Your task to perform on an android device: open app "Upside-Cash back on gas & food" Image 0: 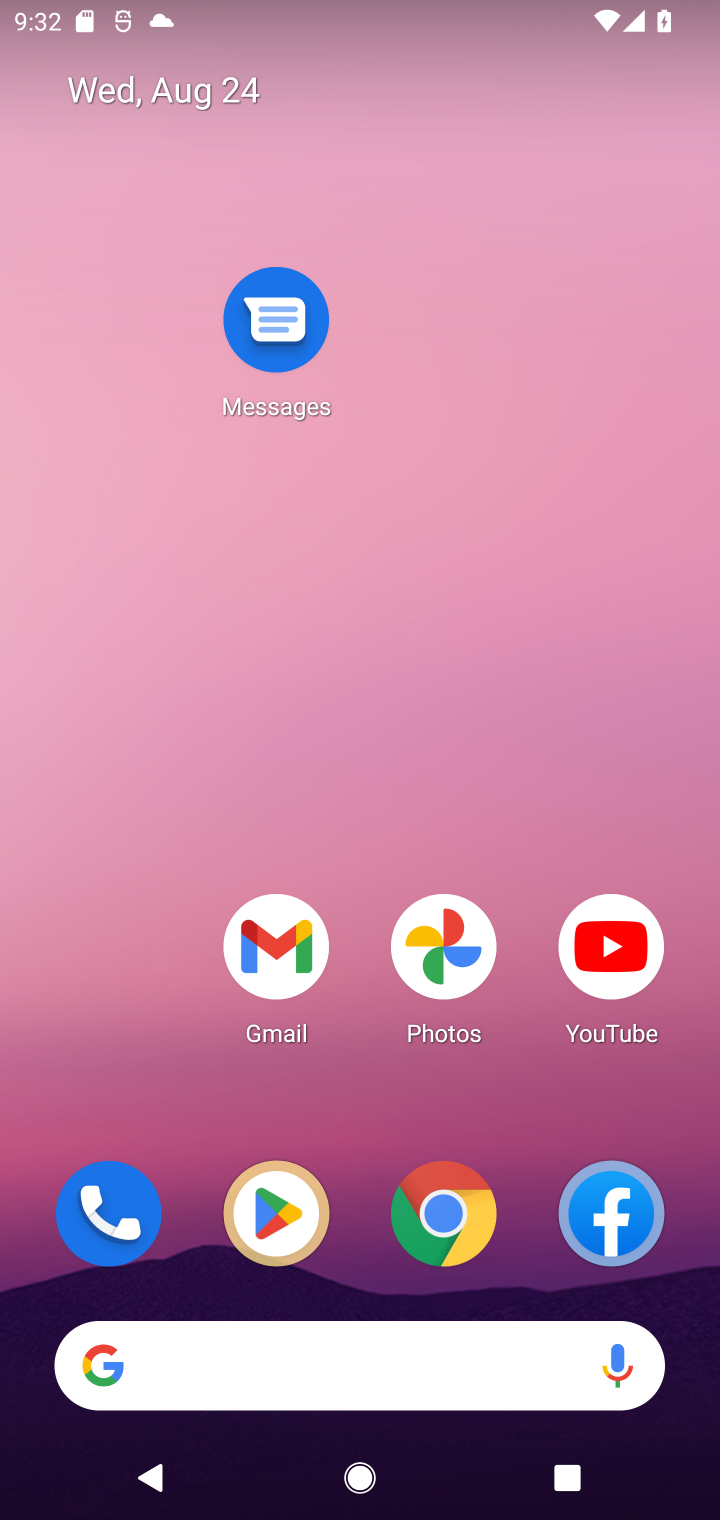
Step 0: click (288, 1220)
Your task to perform on an android device: open app "Upside-Cash back on gas & food" Image 1: 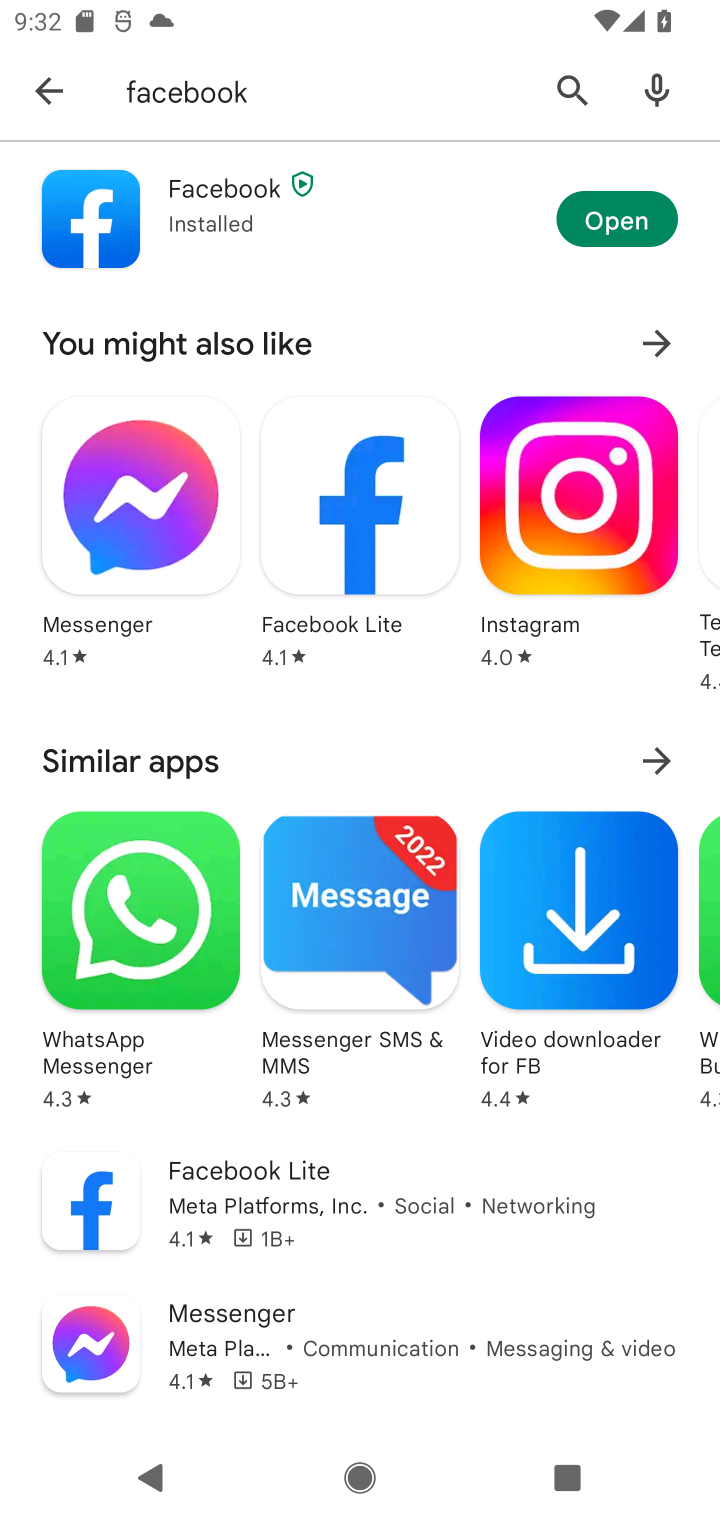
Step 1: click (319, 75)
Your task to perform on an android device: open app "Upside-Cash back on gas & food" Image 2: 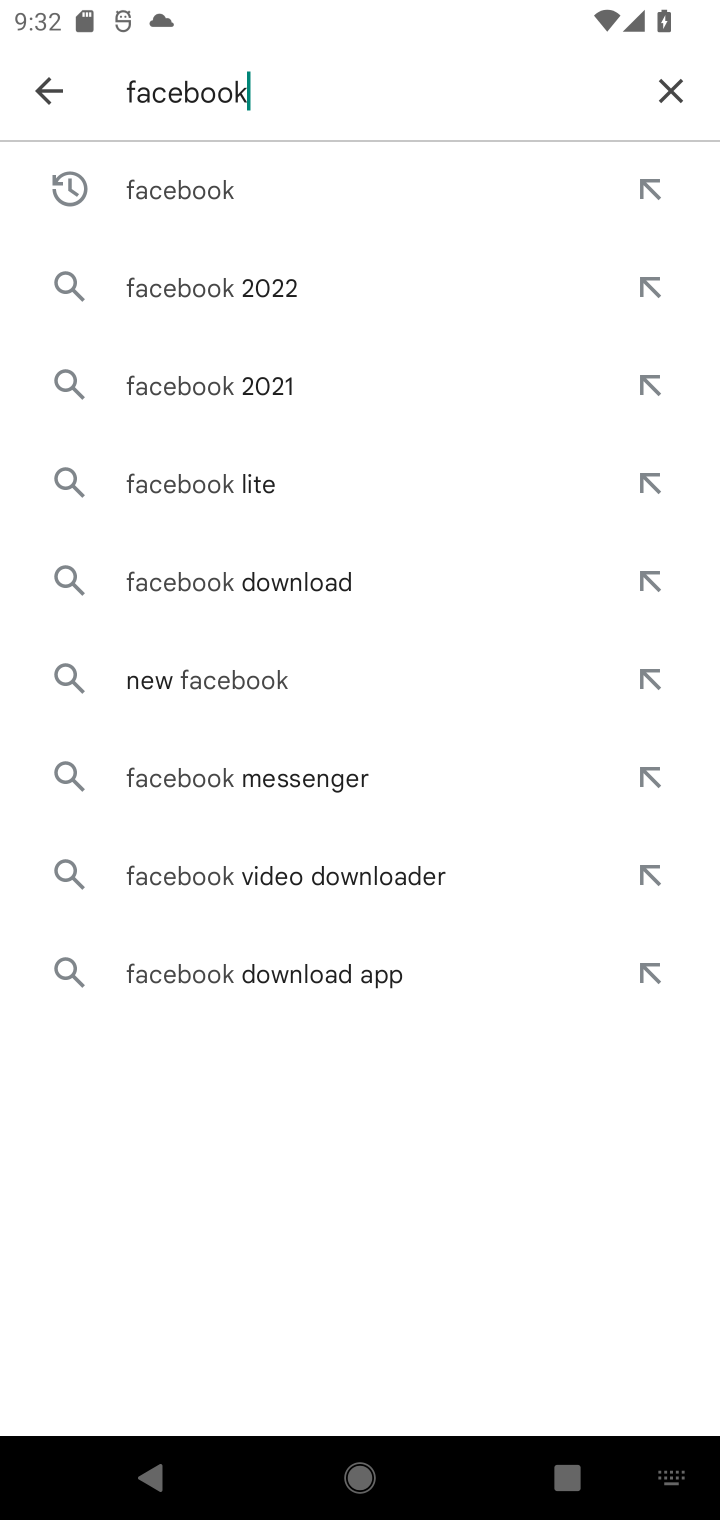
Step 2: click (673, 81)
Your task to perform on an android device: open app "Upside-Cash back on gas & food" Image 3: 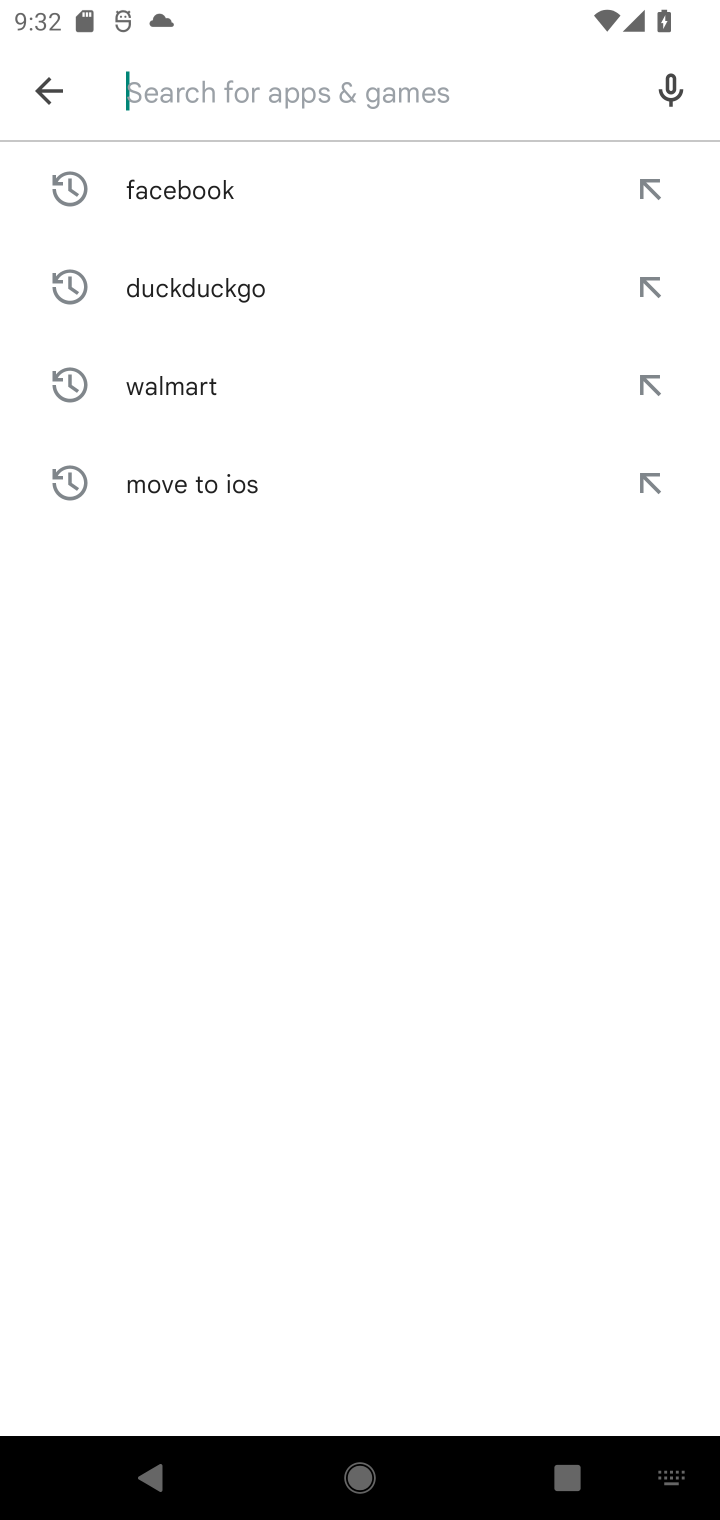
Step 3: type "Upside"
Your task to perform on an android device: open app "Upside-Cash back on gas & food" Image 4: 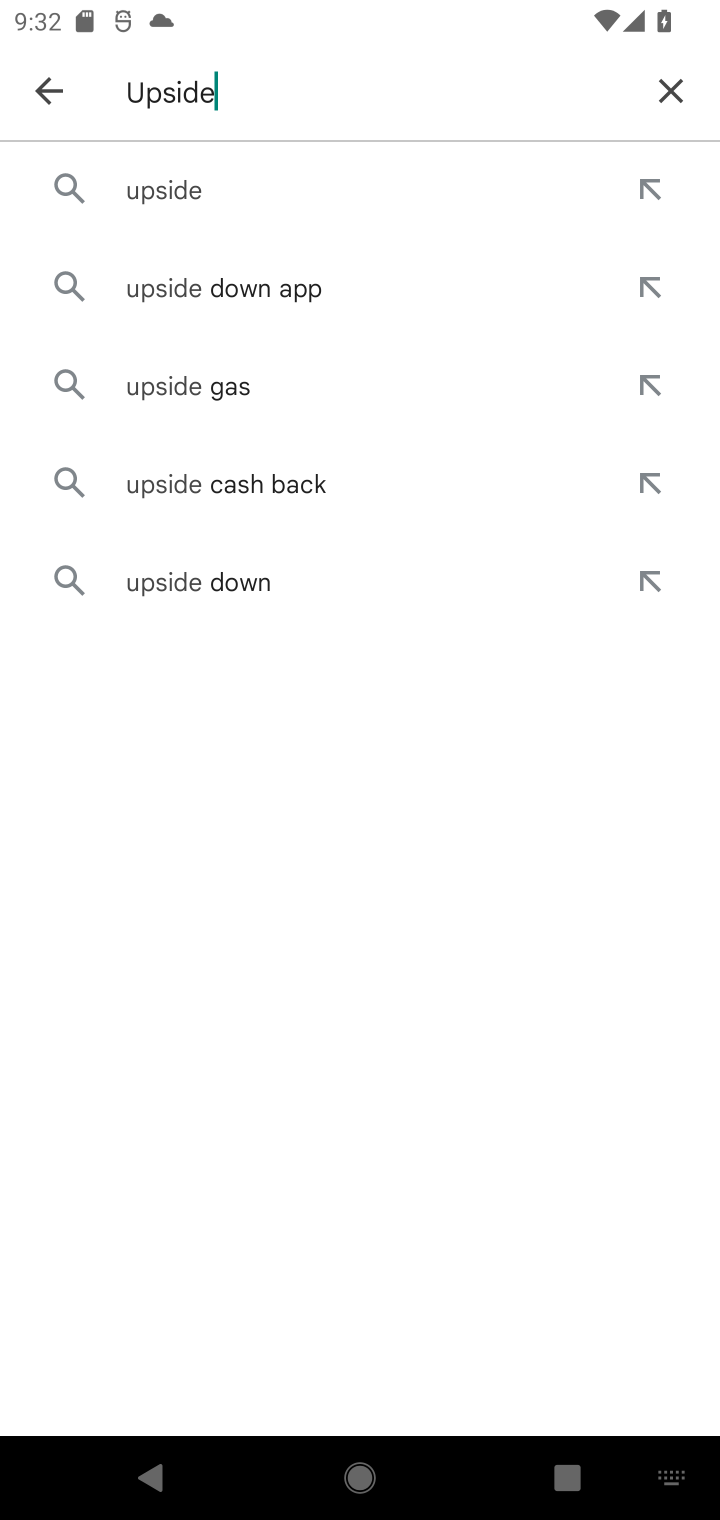
Step 4: click (174, 197)
Your task to perform on an android device: open app "Upside-Cash back on gas & food" Image 5: 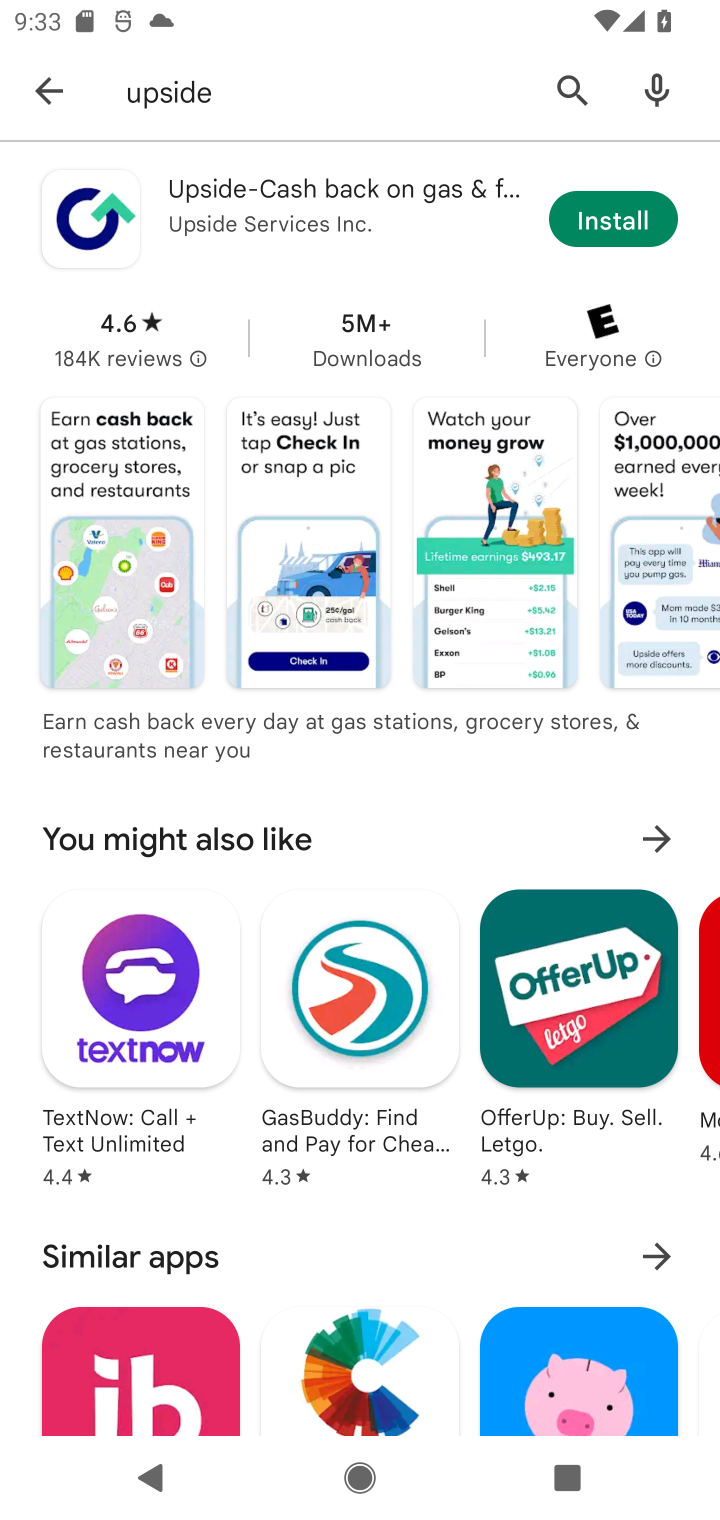
Step 5: task complete